Your task to perform on an android device: Open the calendar and show me this week's events? Image 0: 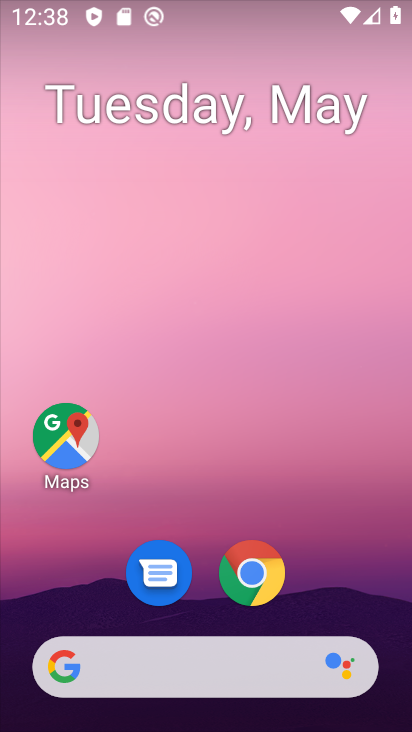
Step 0: drag from (382, 585) to (350, 12)
Your task to perform on an android device: Open the calendar and show me this week's events? Image 1: 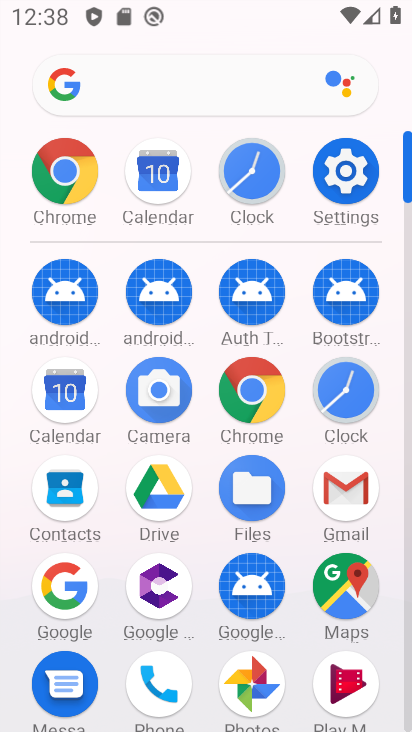
Step 1: click (75, 384)
Your task to perform on an android device: Open the calendar and show me this week's events? Image 2: 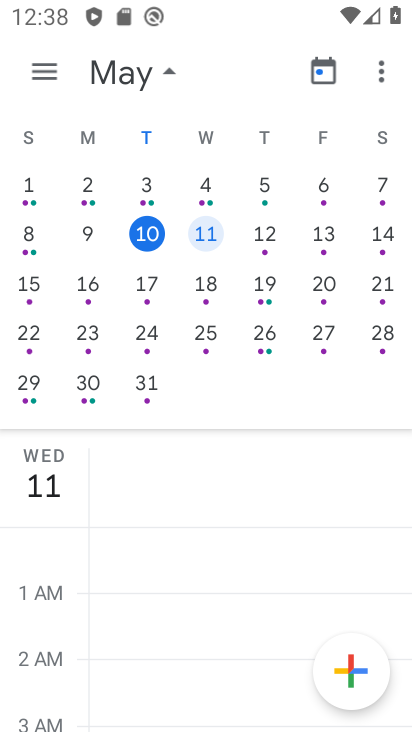
Step 2: click (258, 239)
Your task to perform on an android device: Open the calendar and show me this week's events? Image 3: 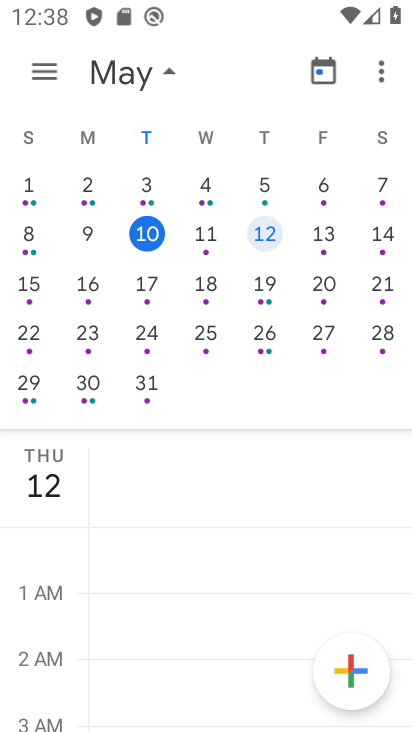
Step 3: task complete